Your task to perform on an android device: When is my next meeting? Image 0: 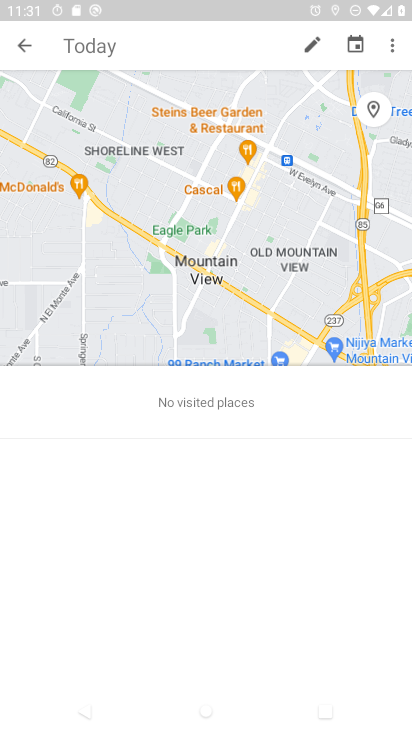
Step 0: press back button
Your task to perform on an android device: When is my next meeting? Image 1: 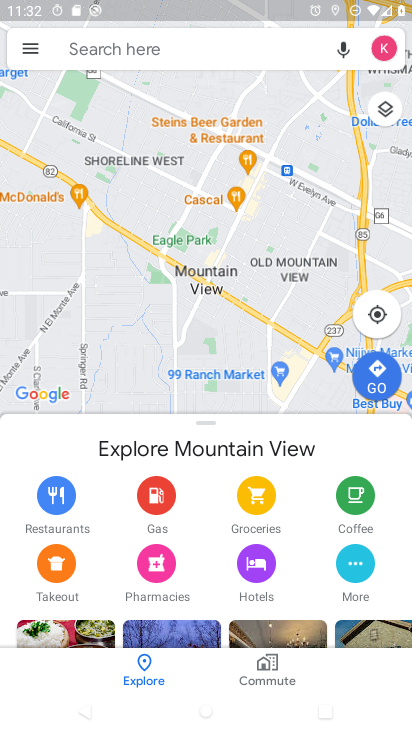
Step 1: press home button
Your task to perform on an android device: When is my next meeting? Image 2: 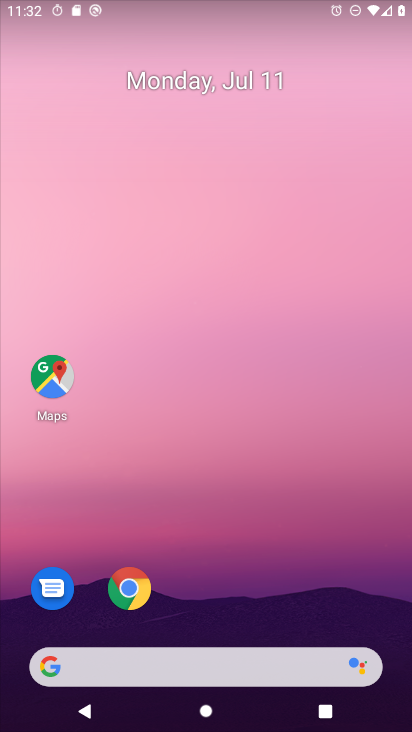
Step 2: drag from (164, 602) to (283, 1)
Your task to perform on an android device: When is my next meeting? Image 3: 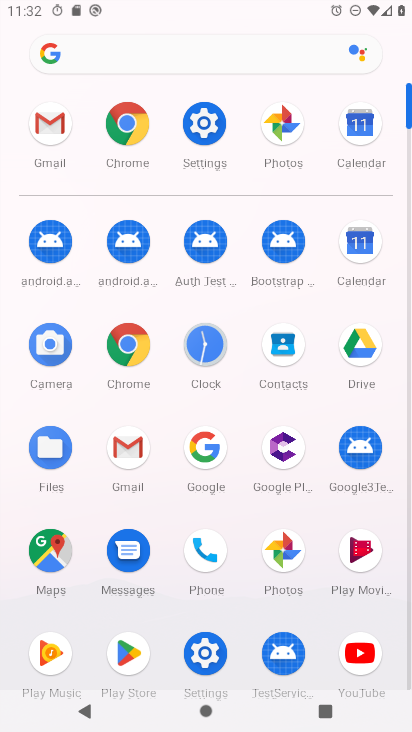
Step 3: click (353, 253)
Your task to perform on an android device: When is my next meeting? Image 4: 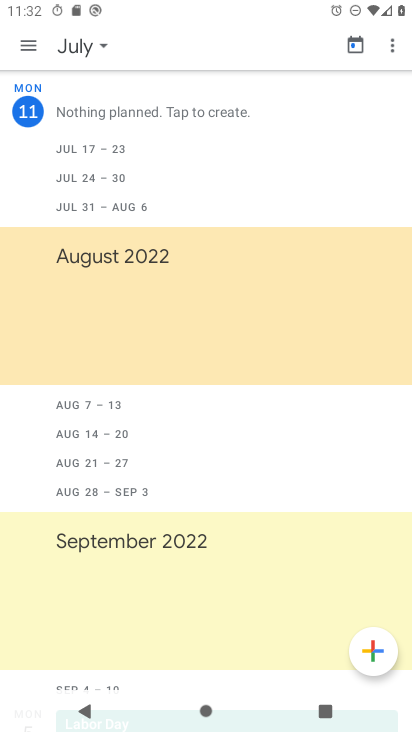
Step 4: click (348, 251)
Your task to perform on an android device: When is my next meeting? Image 5: 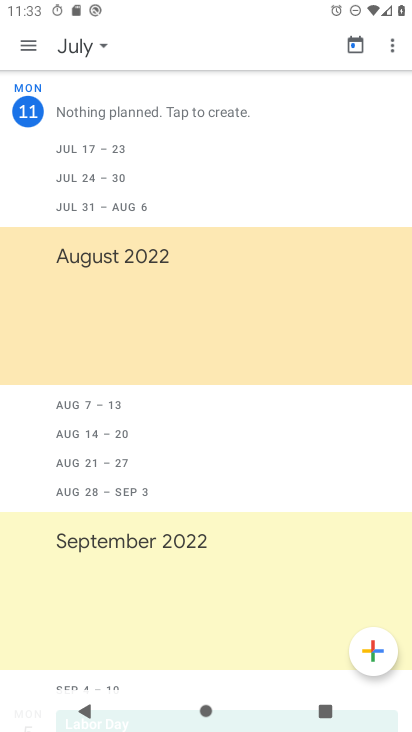
Step 5: task complete